Your task to perform on an android device: Open location settings Image 0: 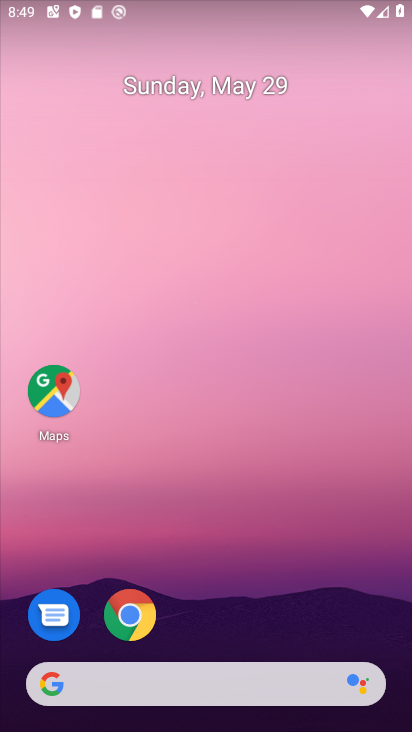
Step 0: drag from (259, 557) to (394, 251)
Your task to perform on an android device: Open location settings Image 1: 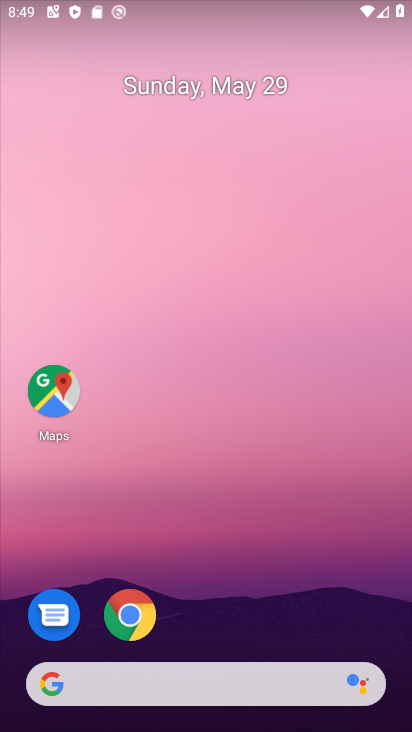
Step 1: drag from (228, 447) to (214, 4)
Your task to perform on an android device: Open location settings Image 2: 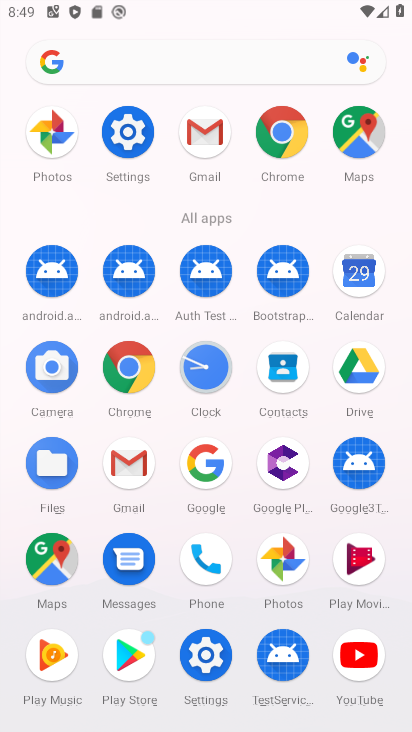
Step 2: click (116, 122)
Your task to perform on an android device: Open location settings Image 3: 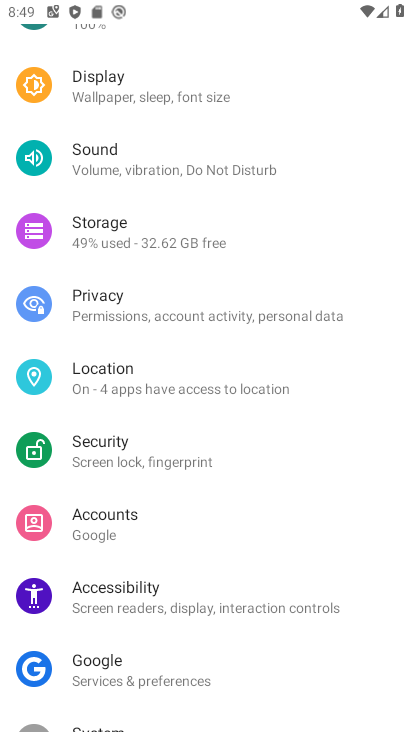
Step 3: click (136, 371)
Your task to perform on an android device: Open location settings Image 4: 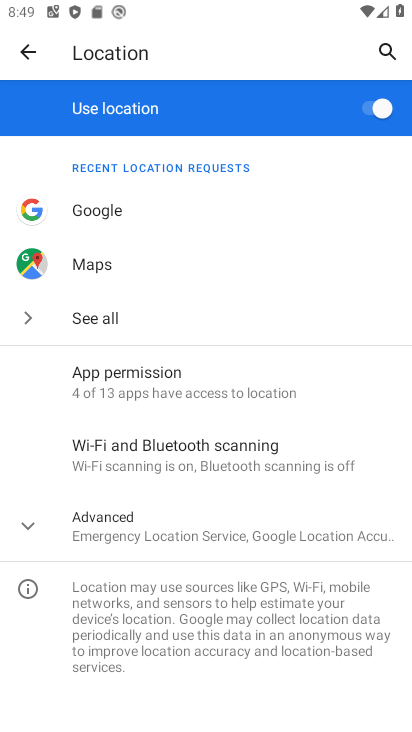
Step 4: task complete